Your task to perform on an android device: choose inbox layout in the gmail app Image 0: 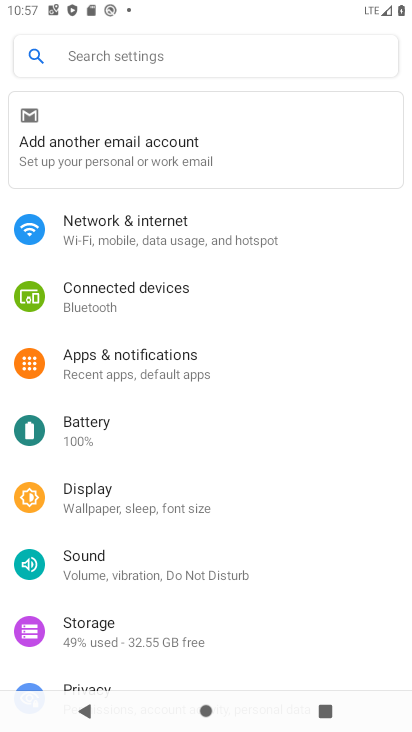
Step 0: press home button
Your task to perform on an android device: choose inbox layout in the gmail app Image 1: 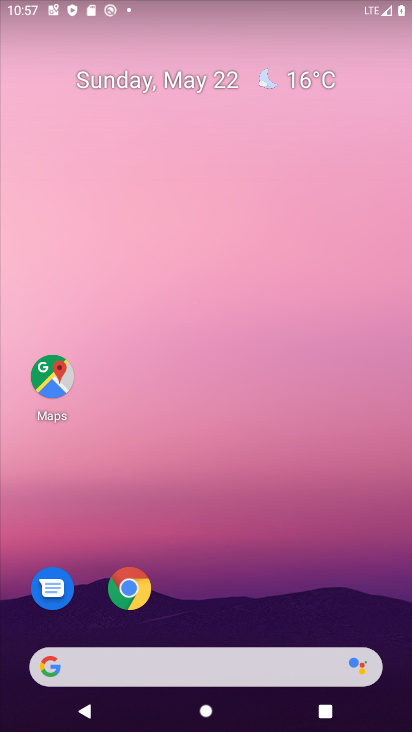
Step 1: drag from (217, 617) to (201, 193)
Your task to perform on an android device: choose inbox layout in the gmail app Image 2: 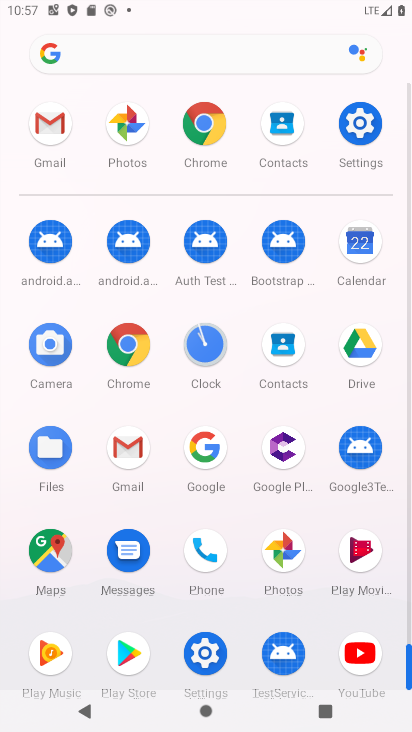
Step 2: click (126, 453)
Your task to perform on an android device: choose inbox layout in the gmail app Image 3: 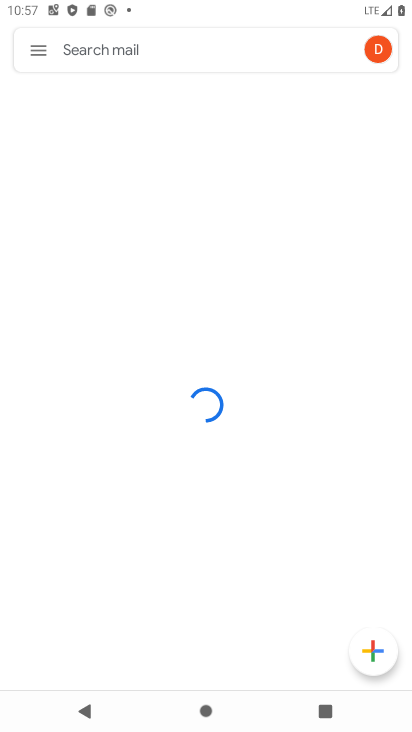
Step 3: click (37, 57)
Your task to perform on an android device: choose inbox layout in the gmail app Image 4: 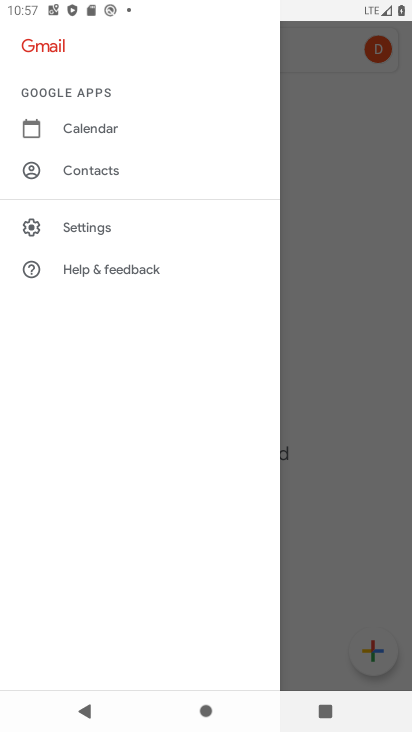
Step 4: click (96, 223)
Your task to perform on an android device: choose inbox layout in the gmail app Image 5: 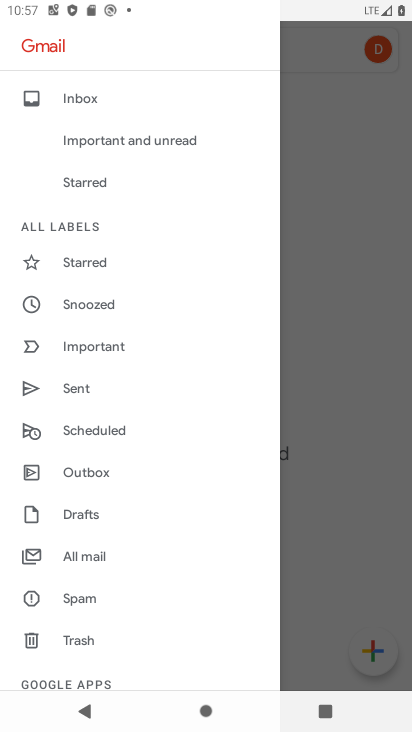
Step 5: drag from (133, 595) to (146, 462)
Your task to perform on an android device: choose inbox layout in the gmail app Image 6: 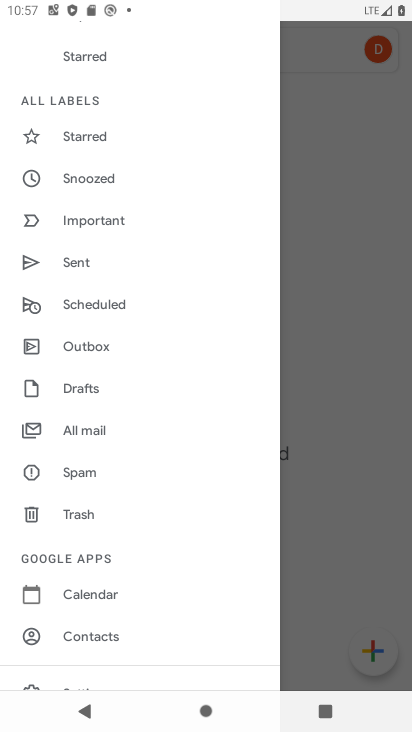
Step 6: drag from (127, 612) to (132, 377)
Your task to perform on an android device: choose inbox layout in the gmail app Image 7: 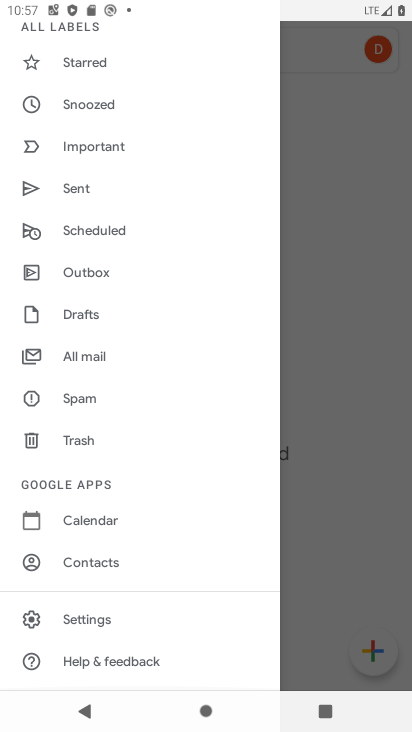
Step 7: click (85, 625)
Your task to perform on an android device: choose inbox layout in the gmail app Image 8: 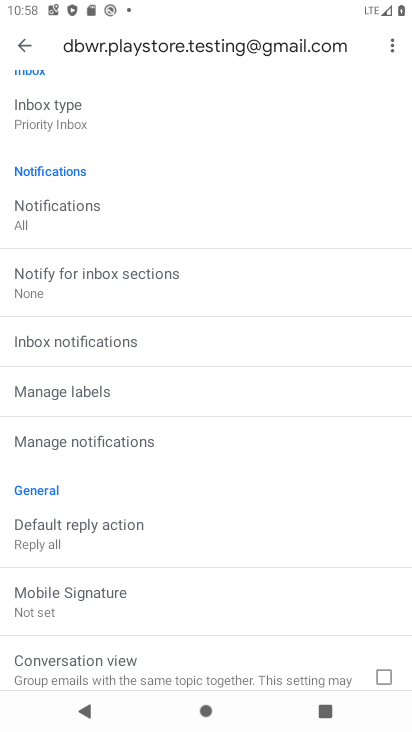
Step 8: click (110, 104)
Your task to perform on an android device: choose inbox layout in the gmail app Image 9: 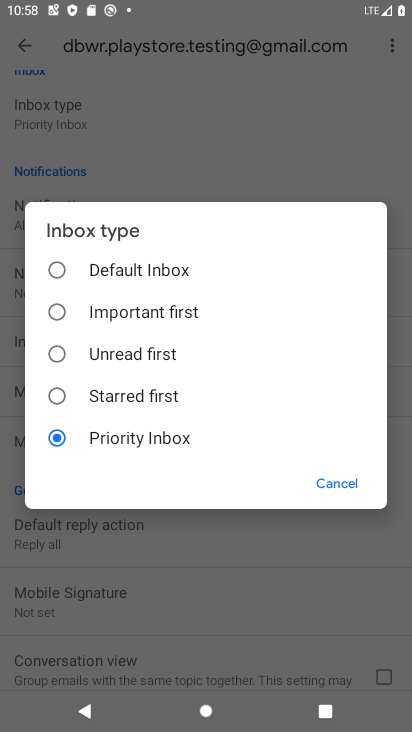
Step 9: click (114, 264)
Your task to perform on an android device: choose inbox layout in the gmail app Image 10: 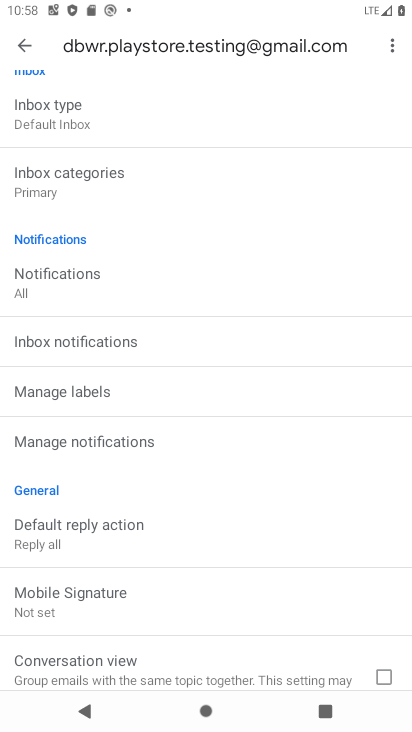
Step 10: task complete